Your task to perform on an android device: Go to calendar. Show me events next week Image 0: 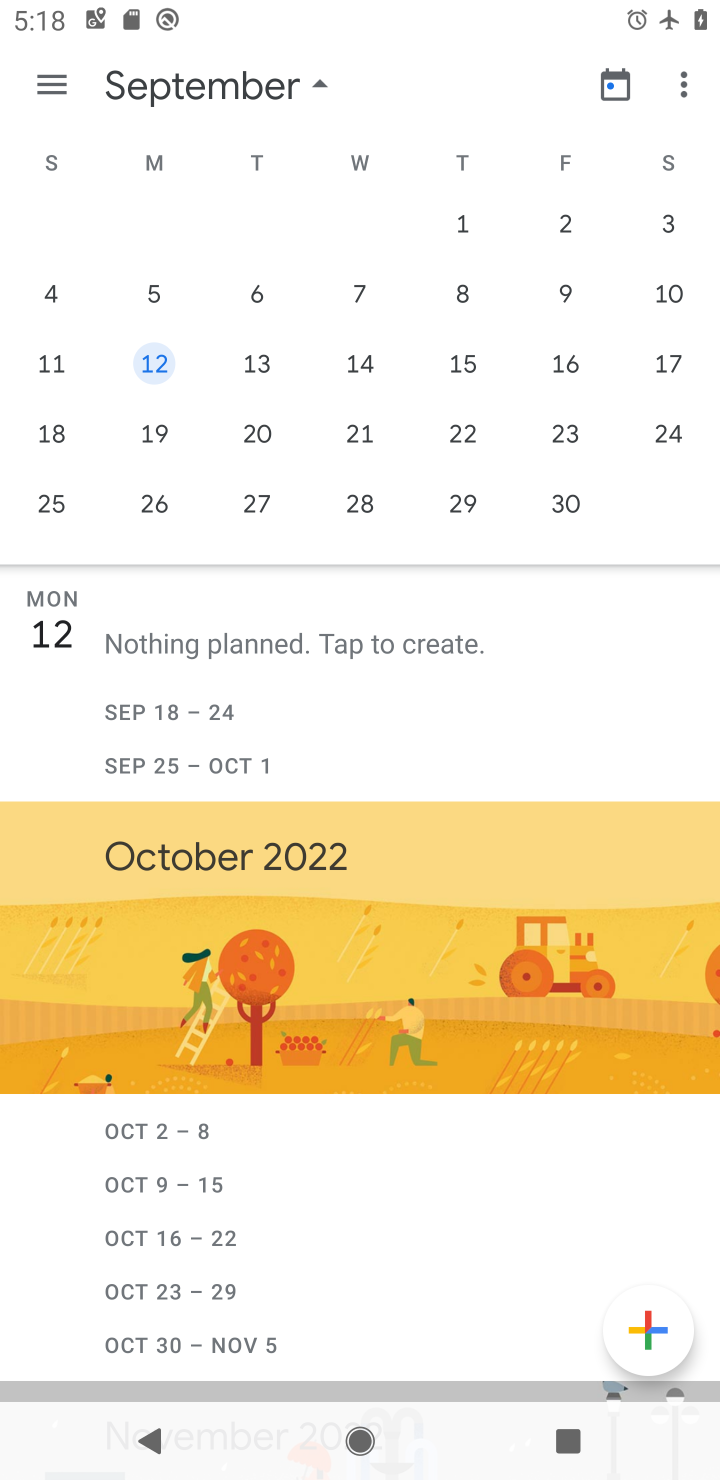
Step 0: click (44, 301)
Your task to perform on an android device: Go to calendar. Show me events next week Image 1: 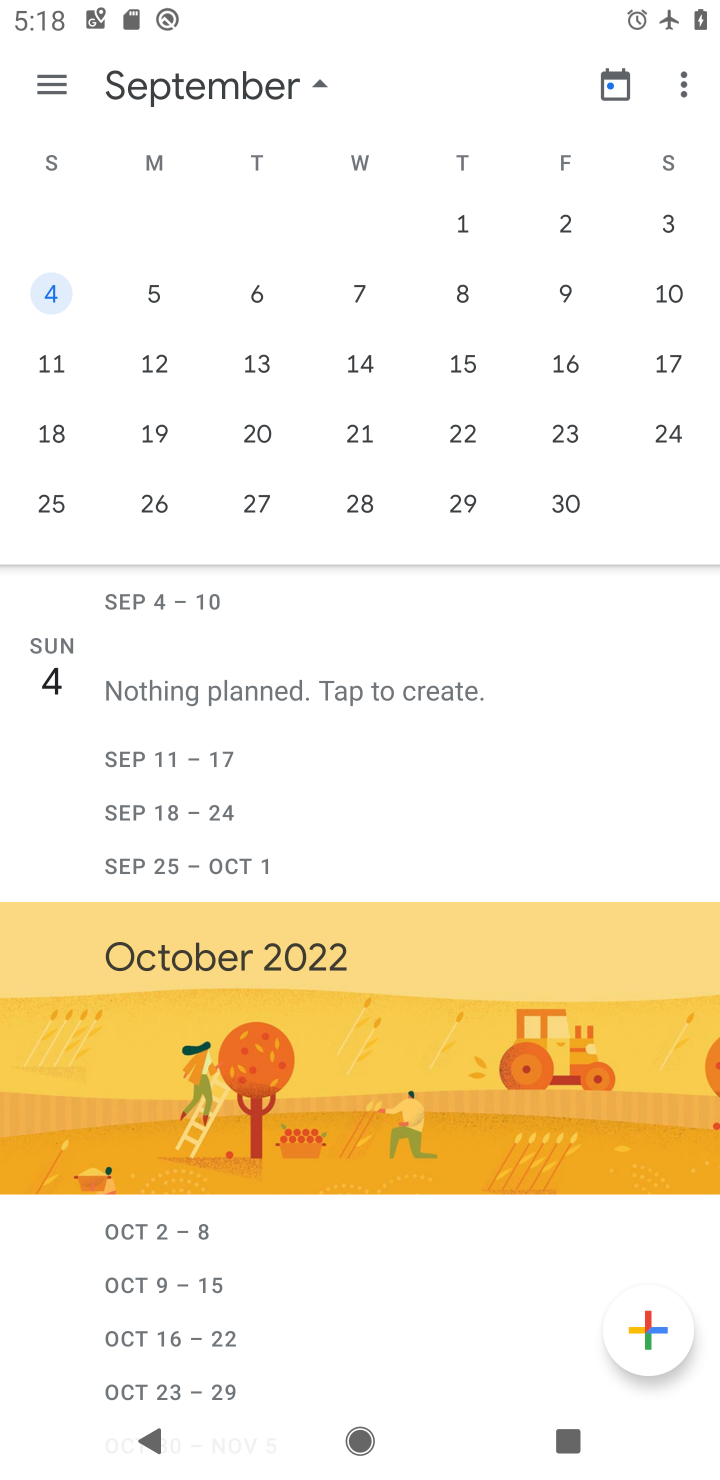
Step 1: drag from (101, 330) to (653, 291)
Your task to perform on an android device: Go to calendar. Show me events next week Image 2: 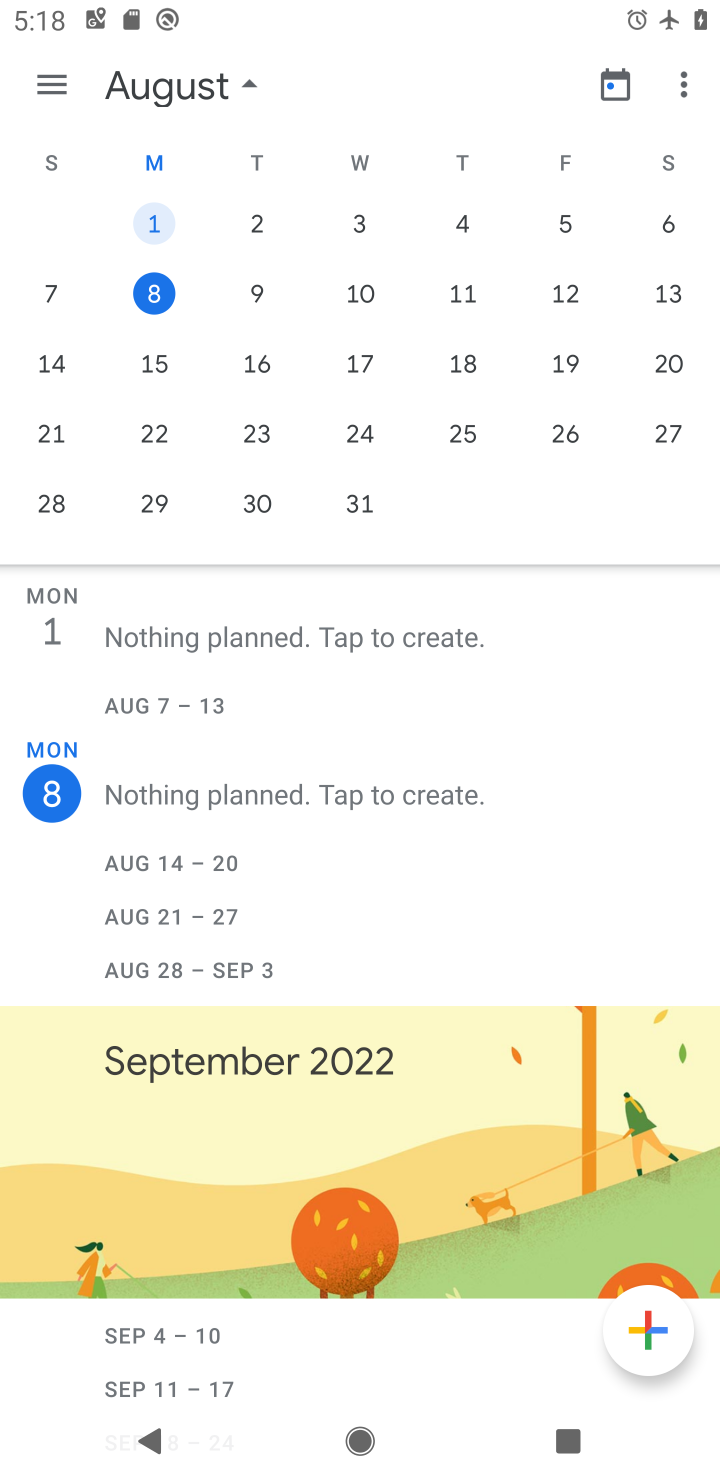
Step 2: click (67, 342)
Your task to perform on an android device: Go to calendar. Show me events next week Image 3: 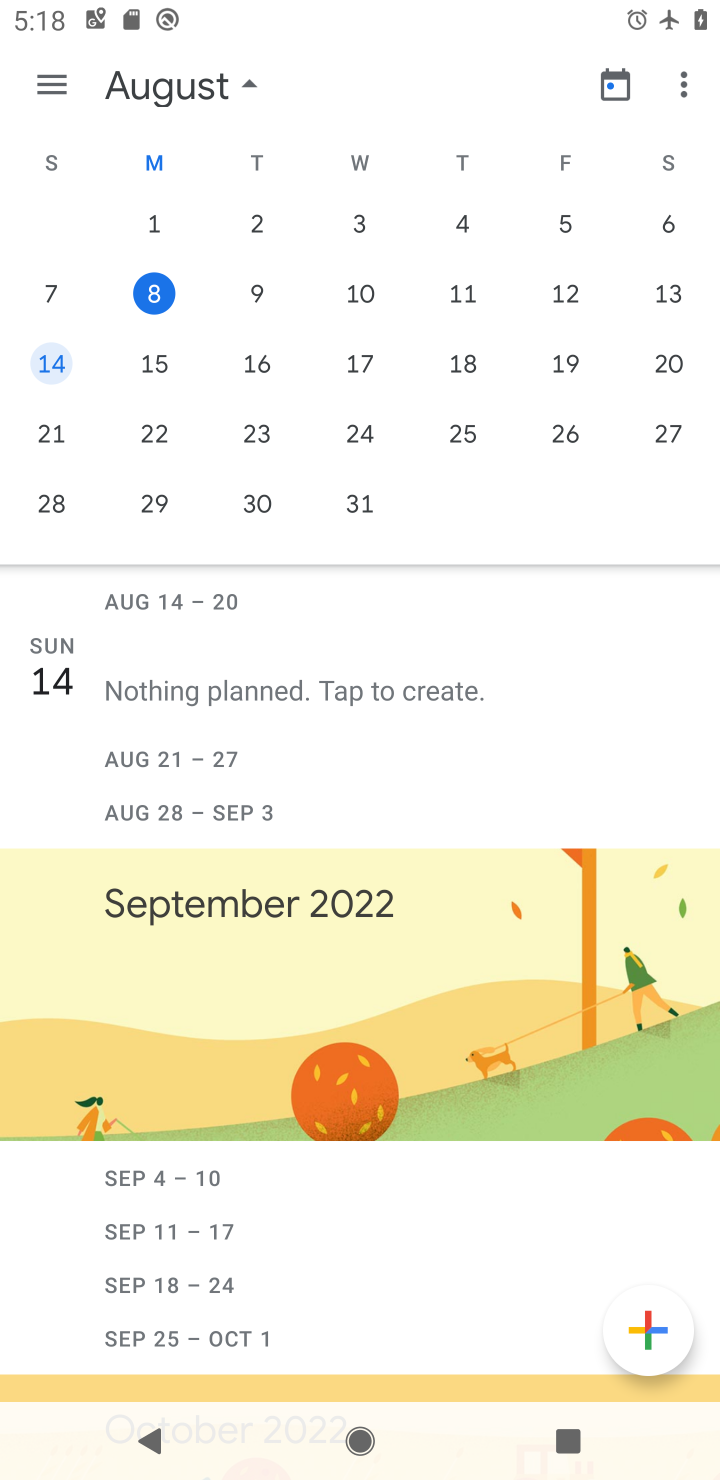
Step 3: task complete